Your task to perform on an android device: toggle javascript in the chrome app Image 0: 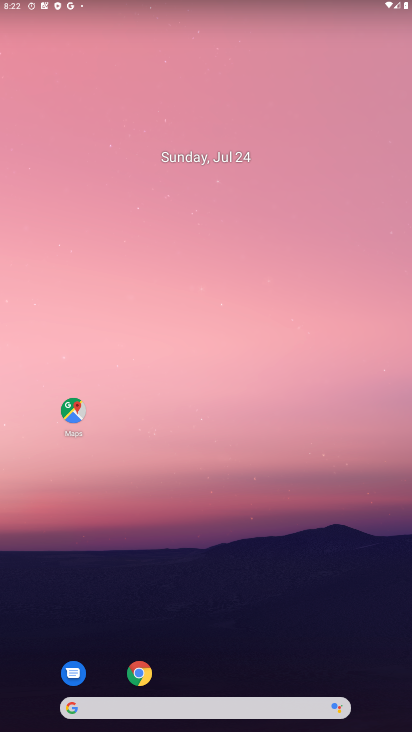
Step 0: click (141, 676)
Your task to perform on an android device: toggle javascript in the chrome app Image 1: 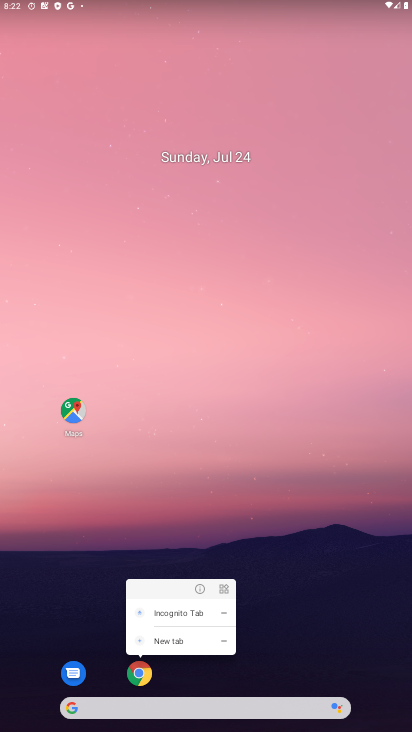
Step 1: click (138, 674)
Your task to perform on an android device: toggle javascript in the chrome app Image 2: 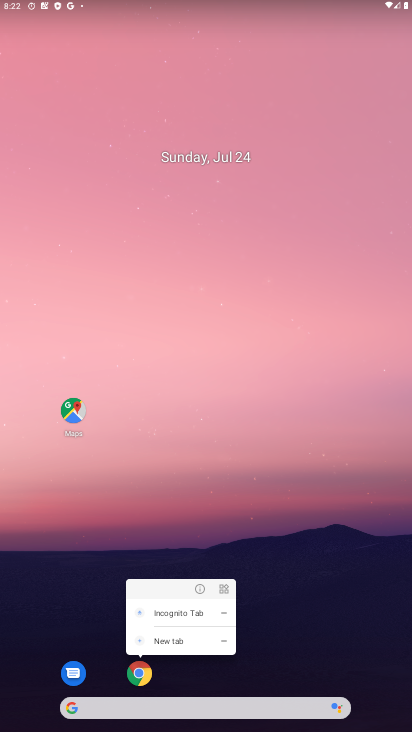
Step 2: click (138, 674)
Your task to perform on an android device: toggle javascript in the chrome app Image 3: 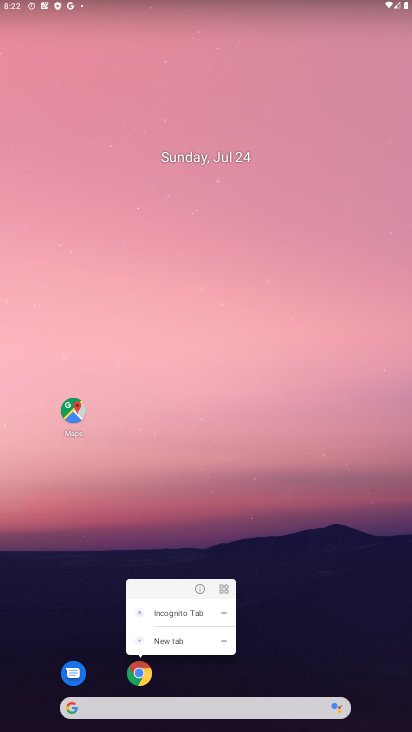
Step 3: click (138, 674)
Your task to perform on an android device: toggle javascript in the chrome app Image 4: 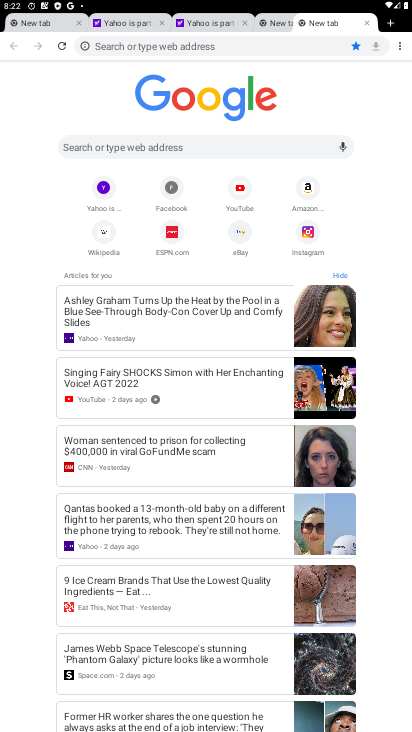
Step 4: click (406, 42)
Your task to perform on an android device: toggle javascript in the chrome app Image 5: 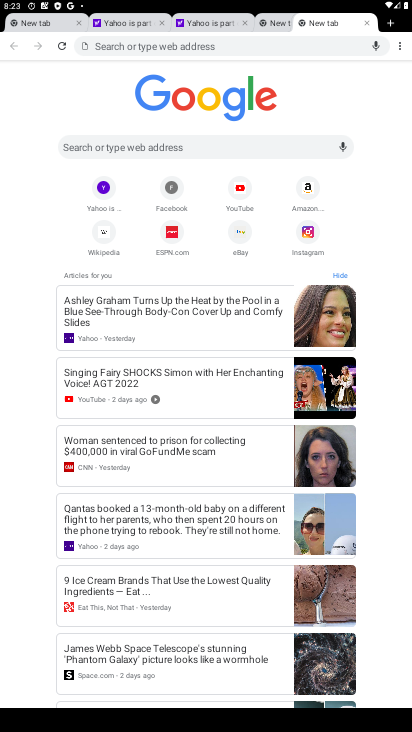
Step 5: click (393, 41)
Your task to perform on an android device: toggle javascript in the chrome app Image 6: 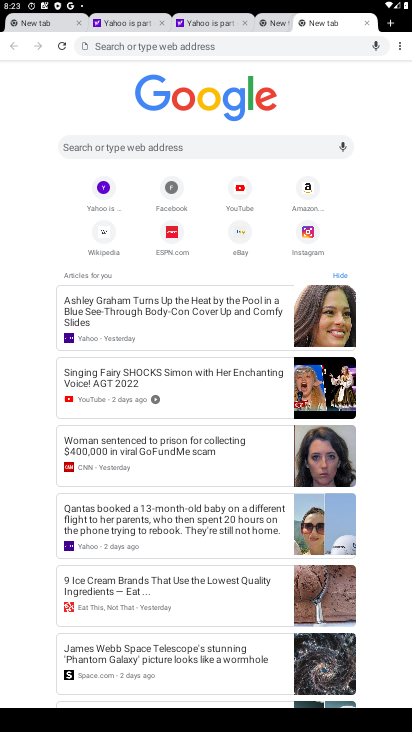
Step 6: click (392, 41)
Your task to perform on an android device: toggle javascript in the chrome app Image 7: 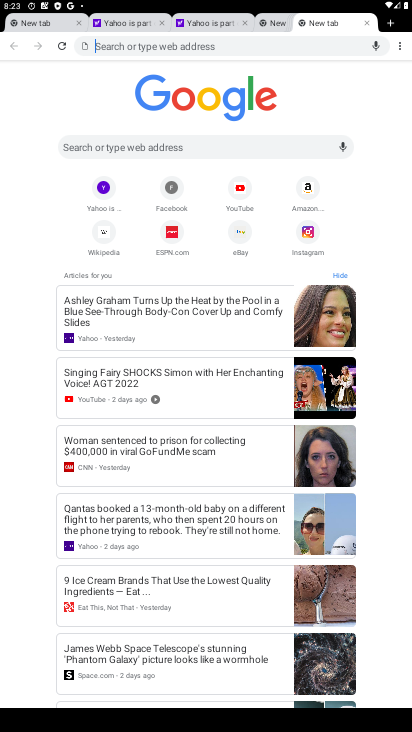
Step 7: click (400, 48)
Your task to perform on an android device: toggle javascript in the chrome app Image 8: 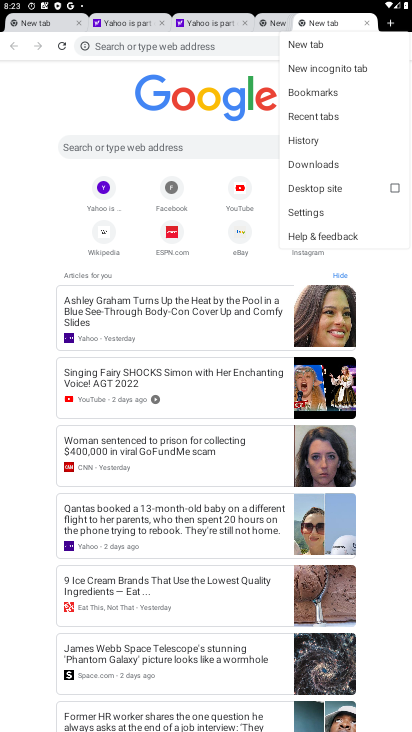
Step 8: click (309, 208)
Your task to perform on an android device: toggle javascript in the chrome app Image 9: 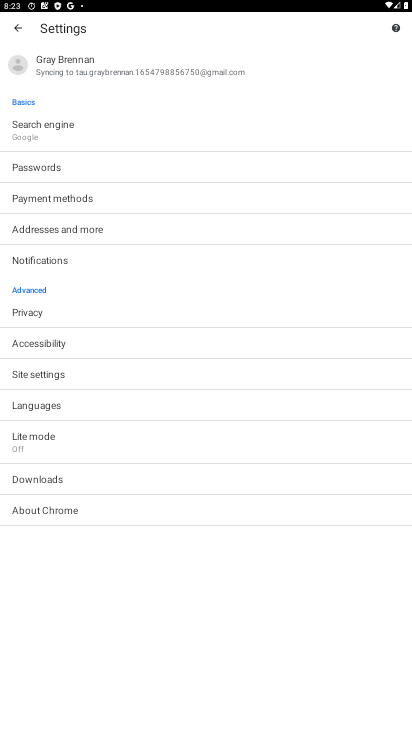
Step 9: click (37, 372)
Your task to perform on an android device: toggle javascript in the chrome app Image 10: 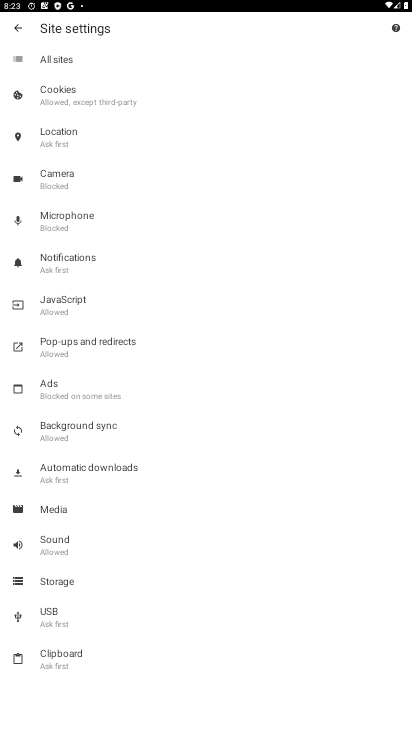
Step 10: click (78, 309)
Your task to perform on an android device: toggle javascript in the chrome app Image 11: 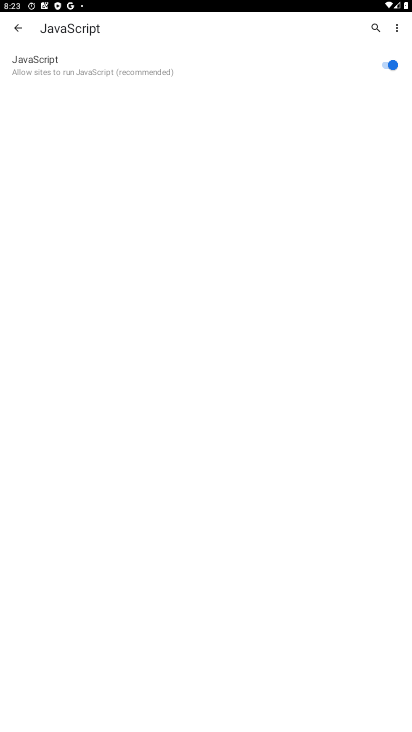
Step 11: task complete